Your task to perform on an android device: Open Chrome and go to settings Image 0: 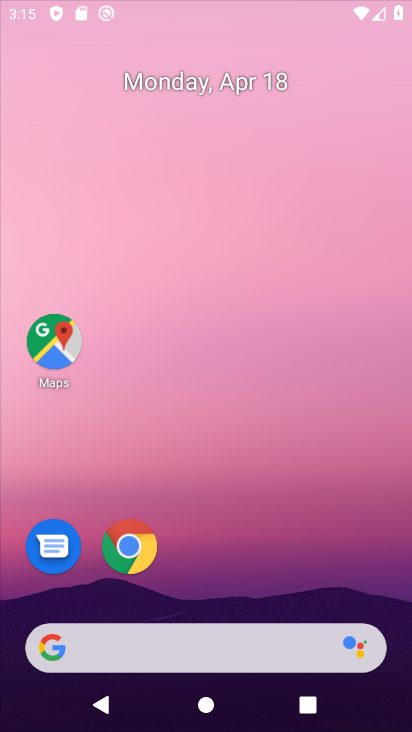
Step 0: drag from (268, 401) to (297, 166)
Your task to perform on an android device: Open Chrome and go to settings Image 1: 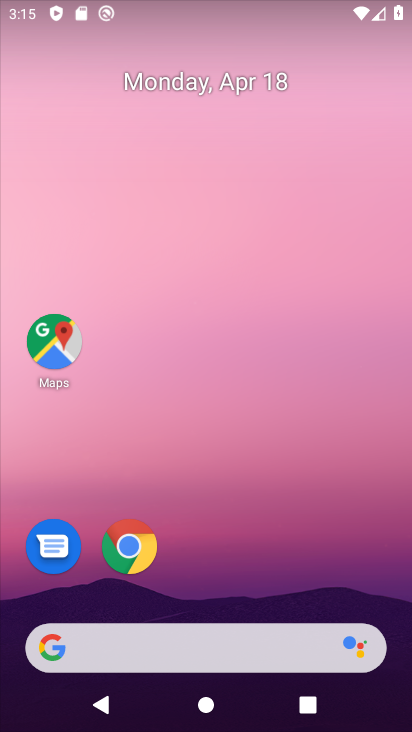
Step 1: click (130, 553)
Your task to perform on an android device: Open Chrome and go to settings Image 2: 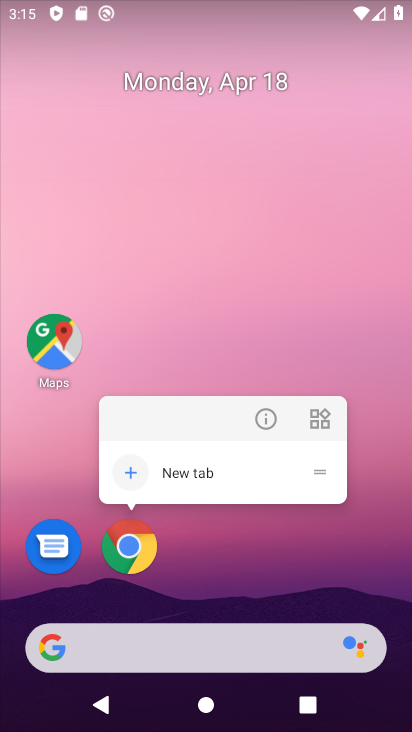
Step 2: drag from (246, 595) to (300, 116)
Your task to perform on an android device: Open Chrome and go to settings Image 3: 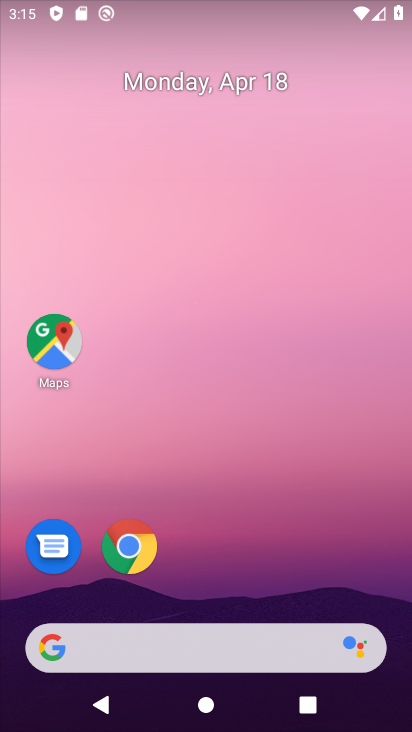
Step 3: drag from (322, 554) to (245, 2)
Your task to perform on an android device: Open Chrome and go to settings Image 4: 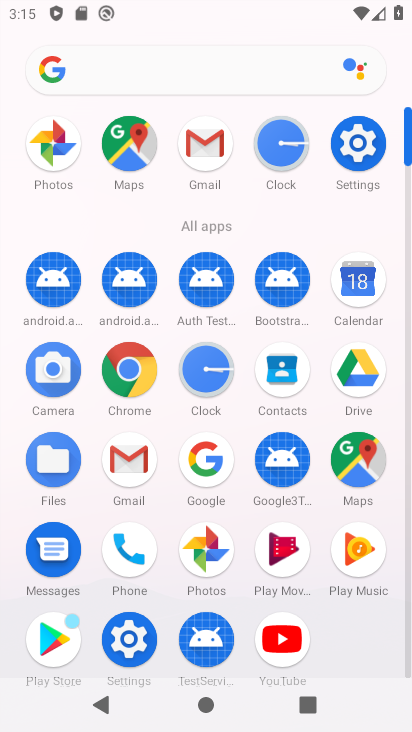
Step 4: click (127, 358)
Your task to perform on an android device: Open Chrome and go to settings Image 5: 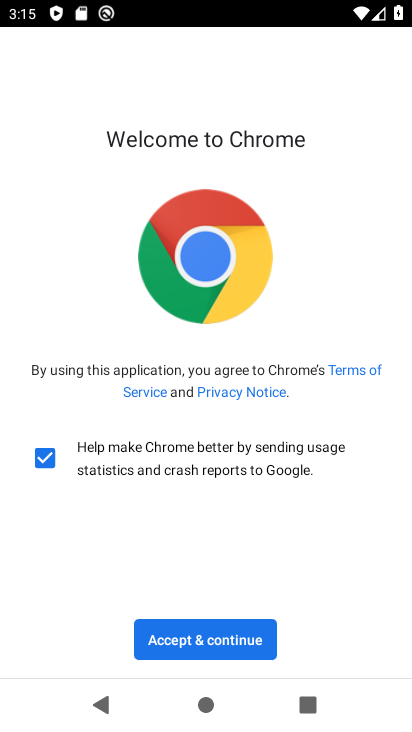
Step 5: click (202, 638)
Your task to perform on an android device: Open Chrome and go to settings Image 6: 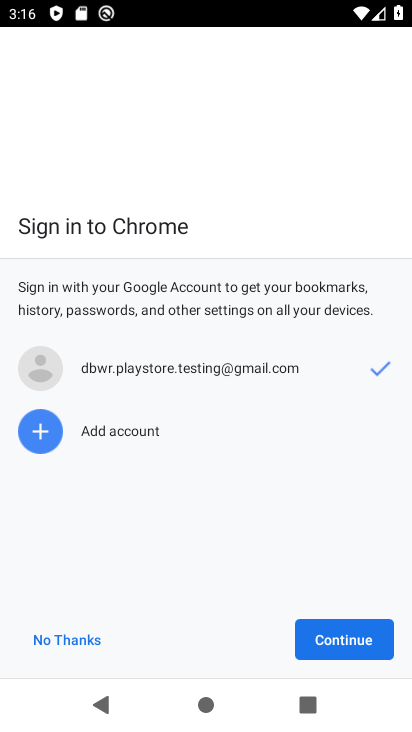
Step 6: click (344, 635)
Your task to perform on an android device: Open Chrome and go to settings Image 7: 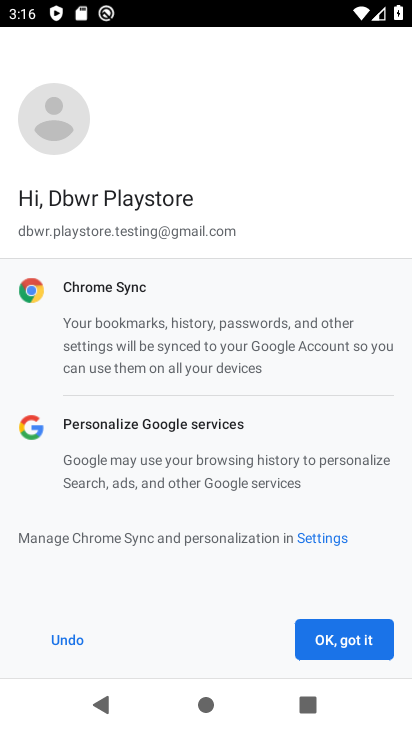
Step 7: click (338, 634)
Your task to perform on an android device: Open Chrome and go to settings Image 8: 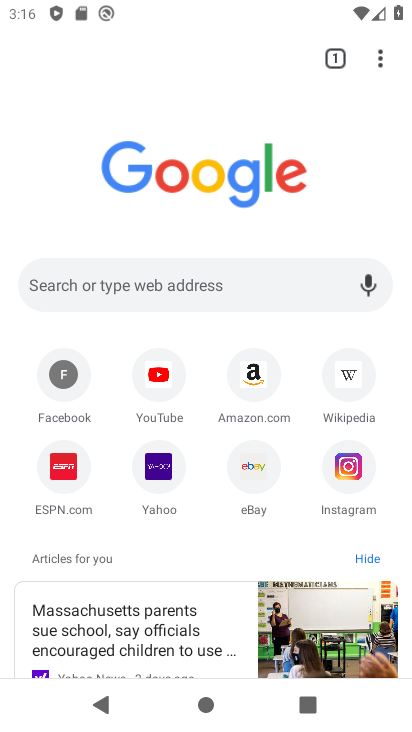
Step 8: task complete